Your task to perform on an android device: Open settings Image 0: 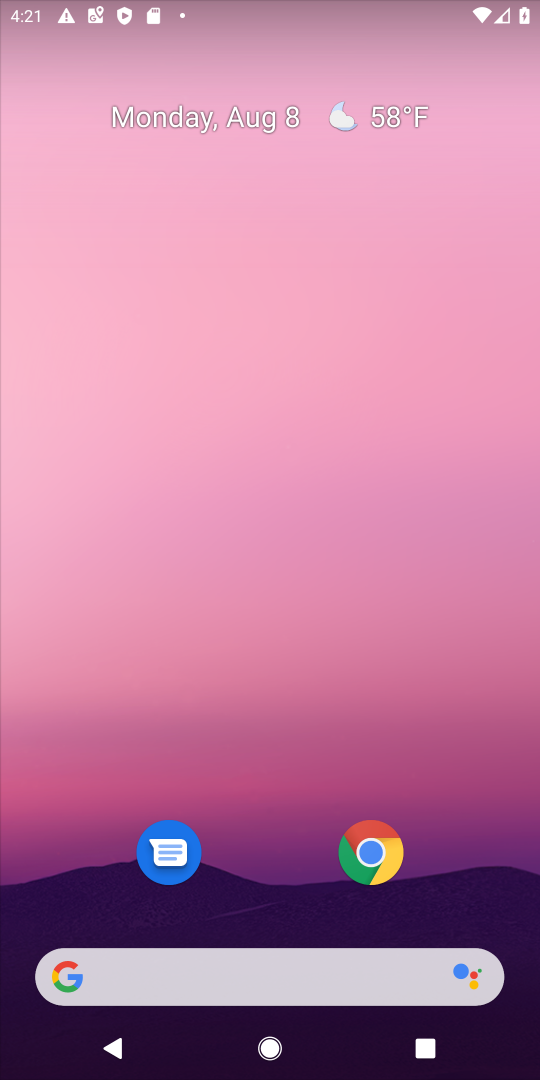
Step 0: drag from (244, 732) to (334, 16)
Your task to perform on an android device: Open settings Image 1: 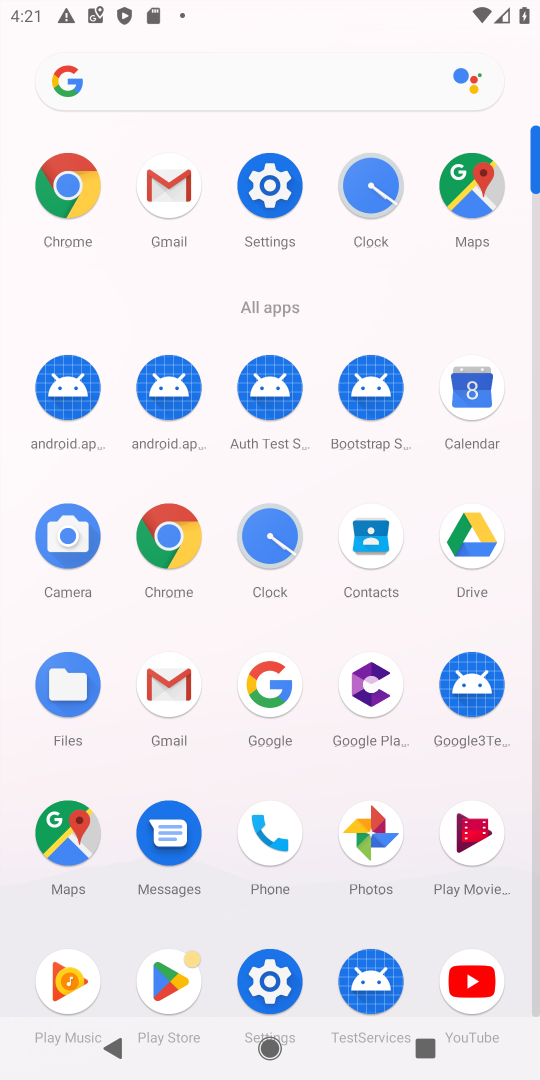
Step 1: click (278, 981)
Your task to perform on an android device: Open settings Image 2: 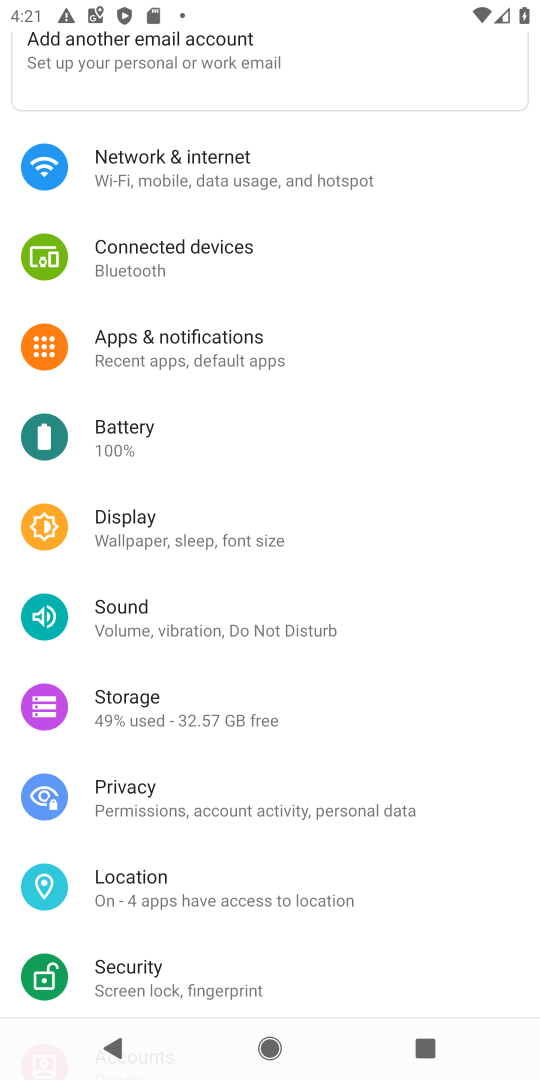
Step 2: task complete